Your task to perform on an android device: Go to location settings Image 0: 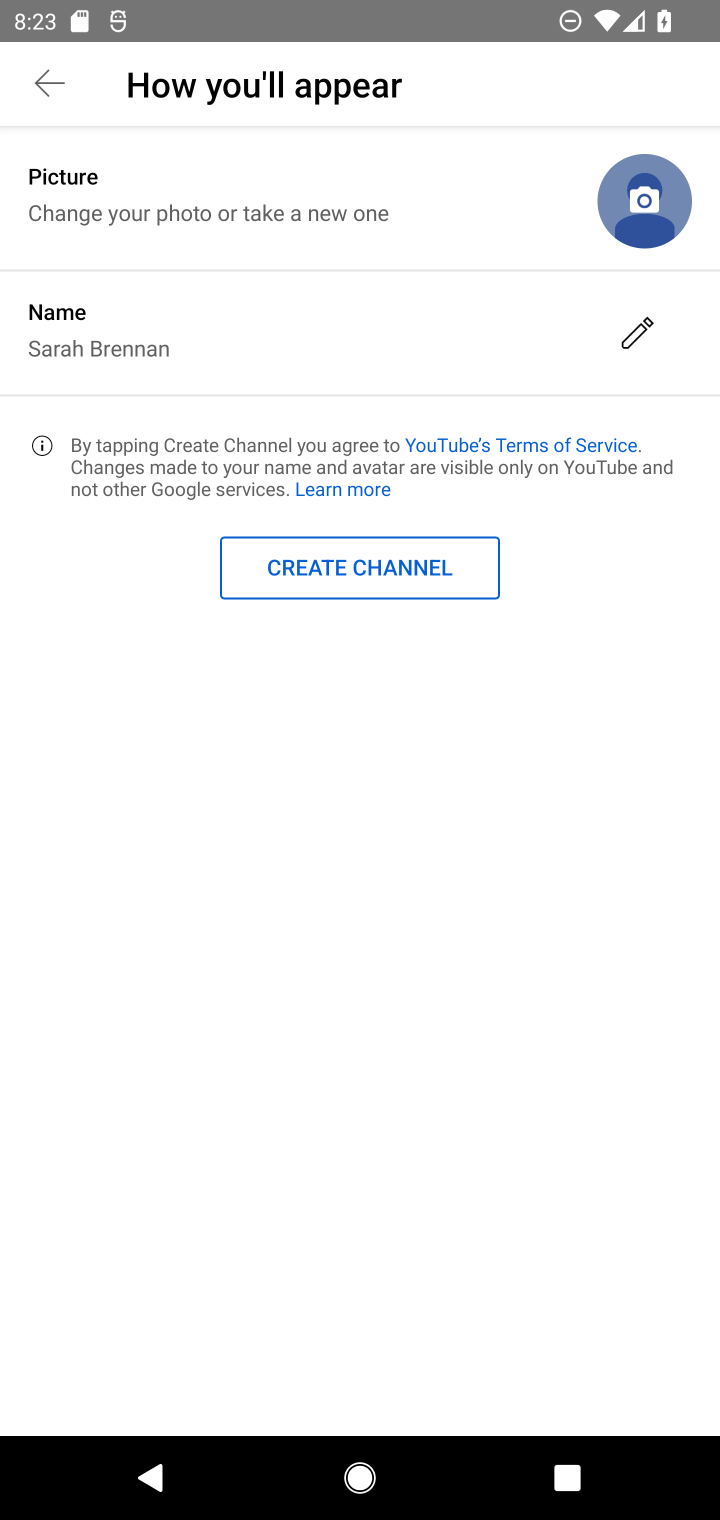
Step 0: press home button
Your task to perform on an android device: Go to location settings Image 1: 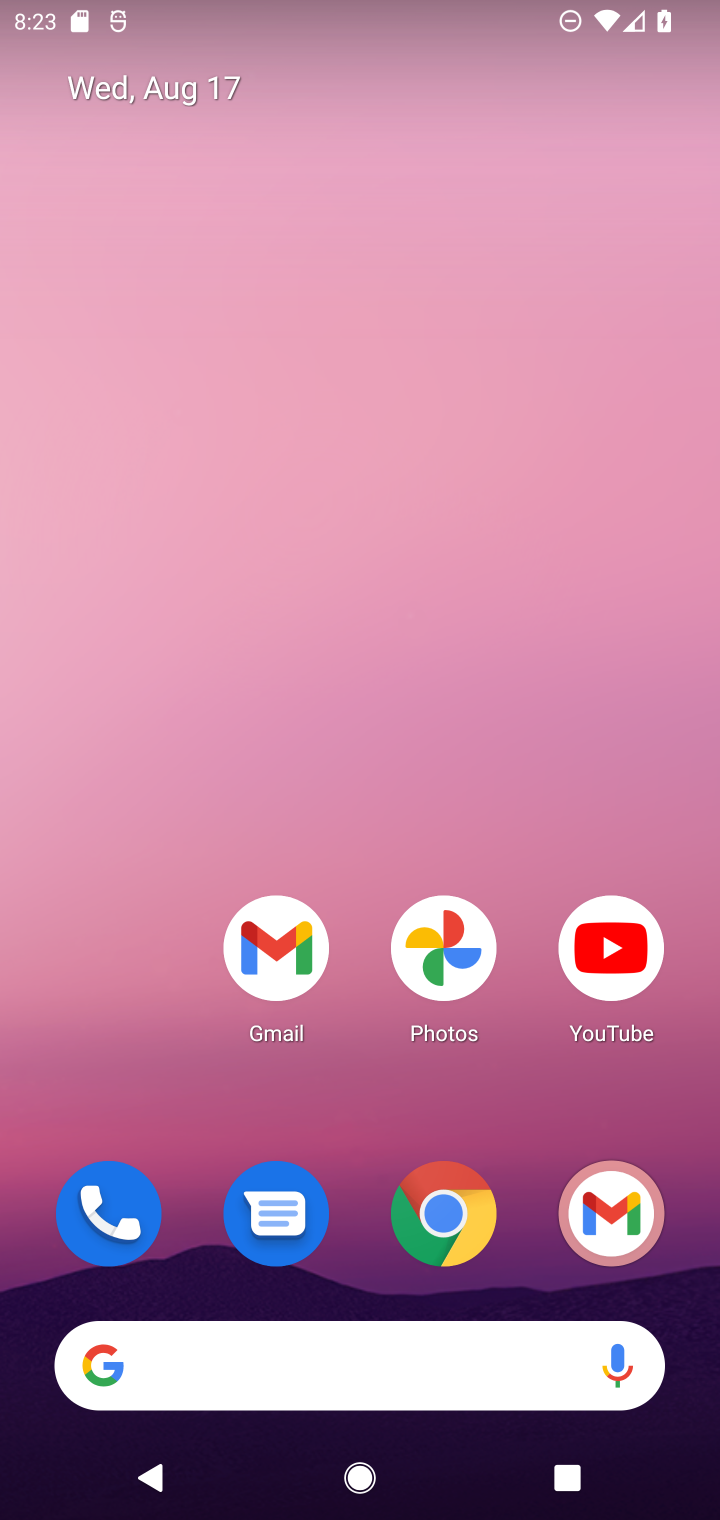
Step 1: drag from (352, 1308) to (535, 167)
Your task to perform on an android device: Go to location settings Image 2: 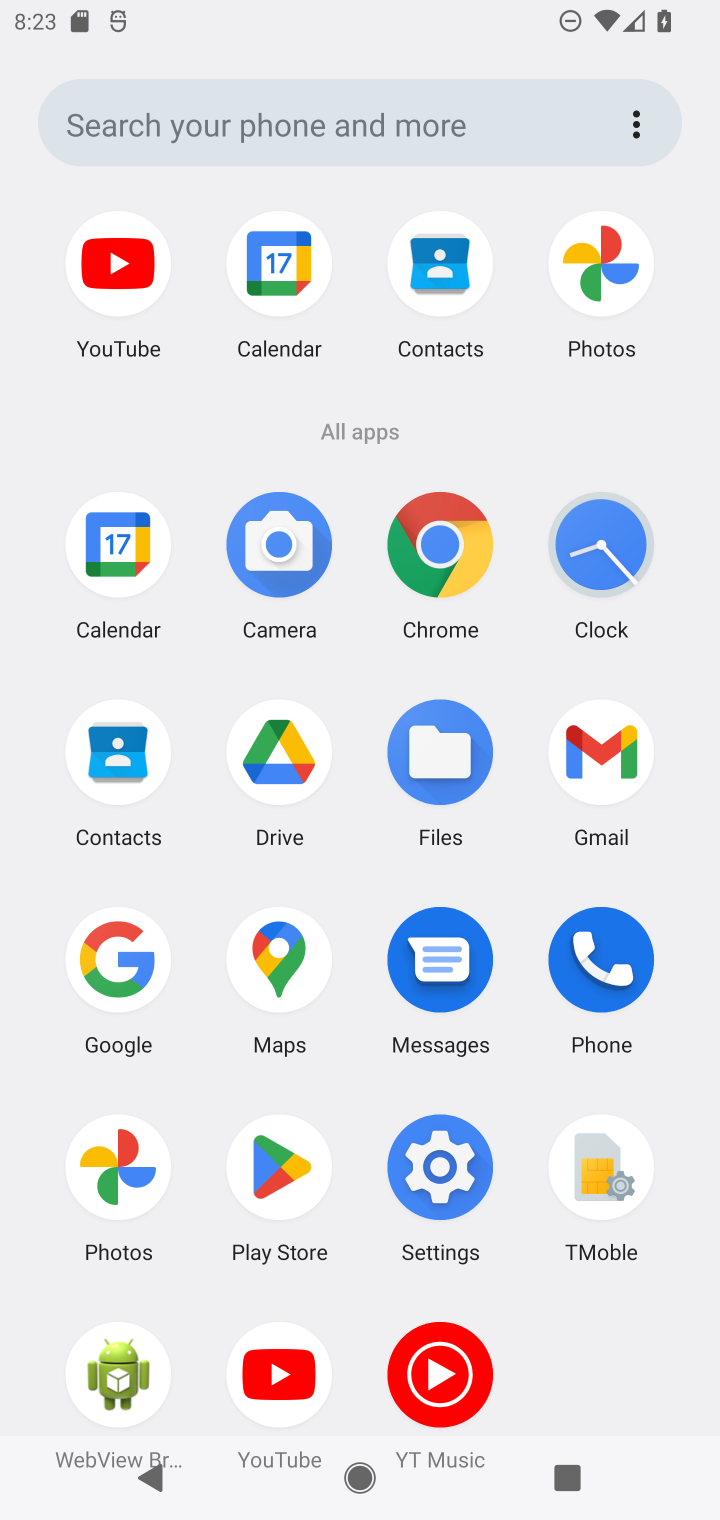
Step 2: click (432, 1259)
Your task to perform on an android device: Go to location settings Image 3: 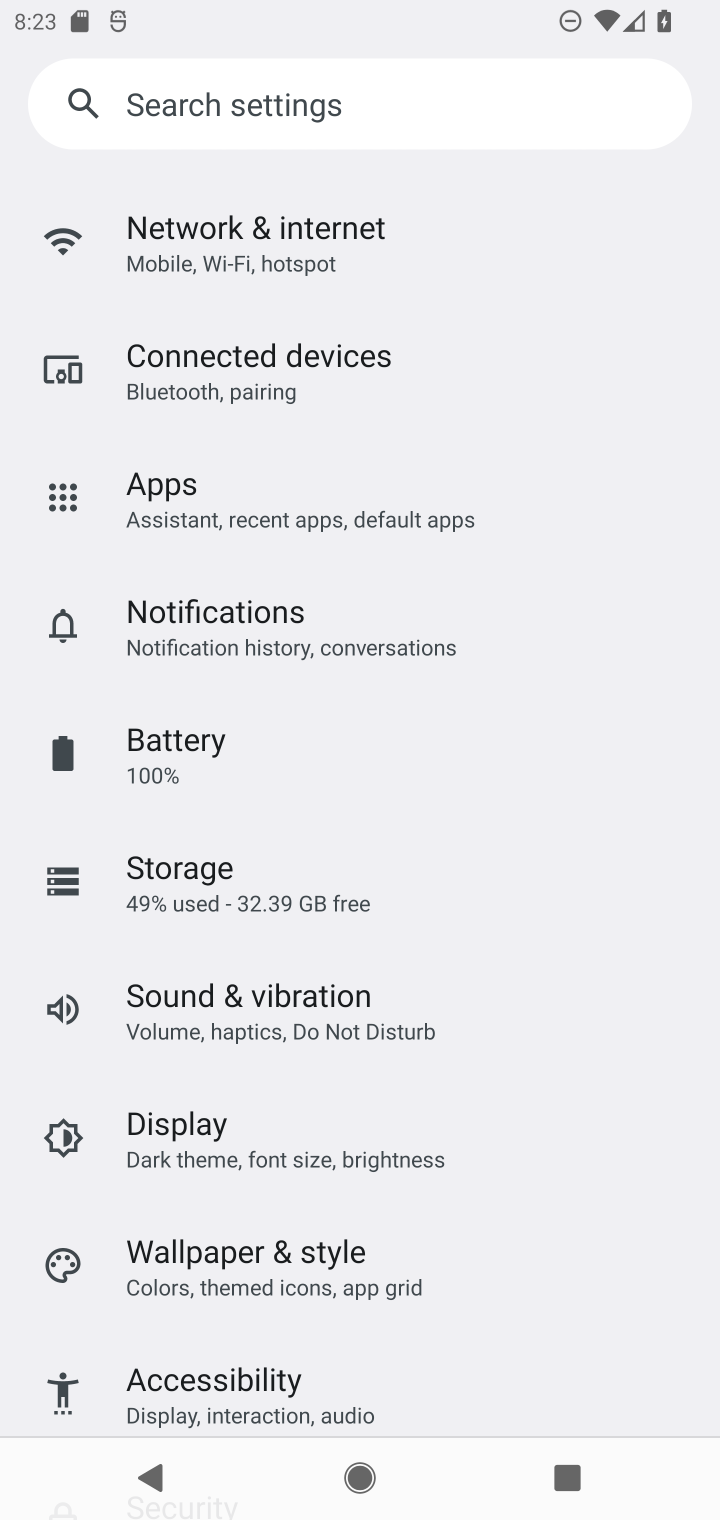
Step 3: drag from (324, 1348) to (343, 429)
Your task to perform on an android device: Go to location settings Image 4: 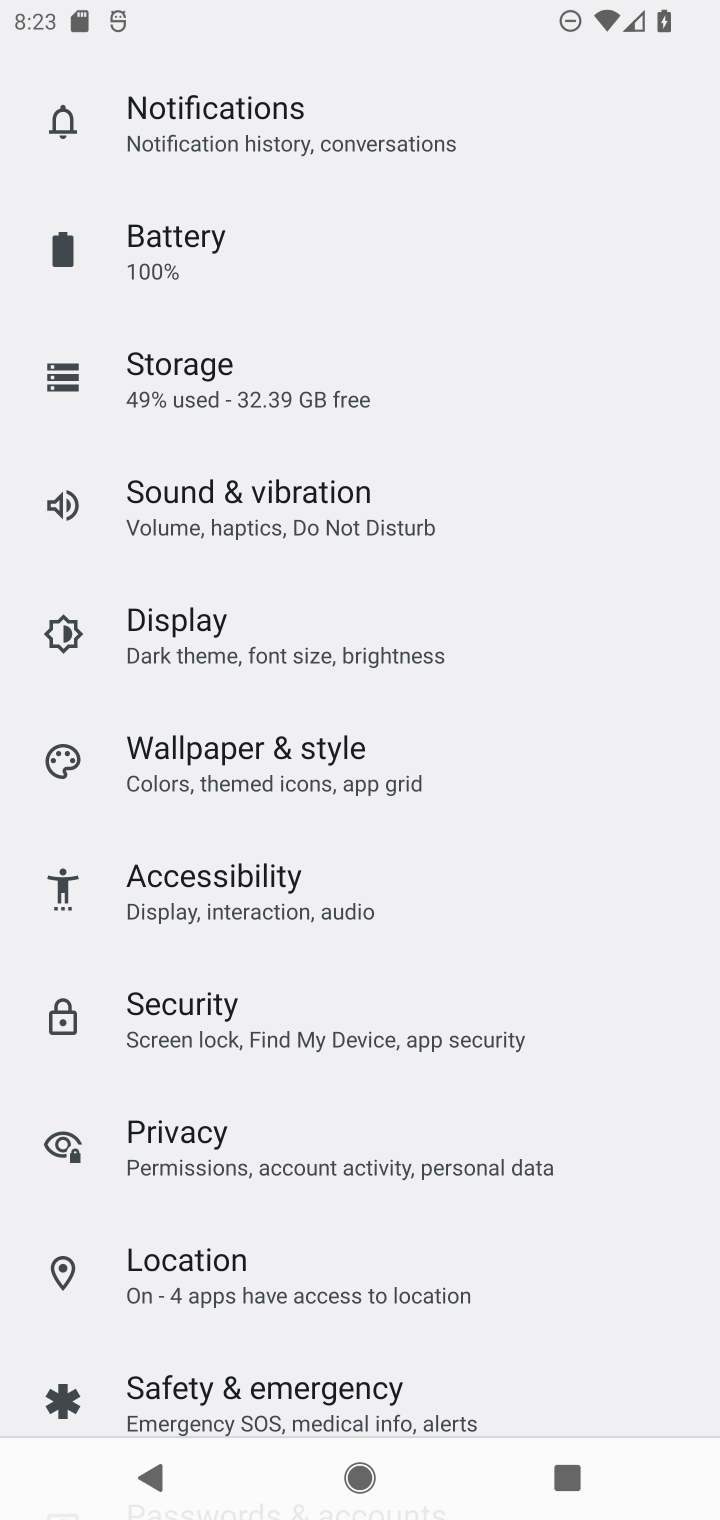
Step 4: click (298, 1294)
Your task to perform on an android device: Go to location settings Image 5: 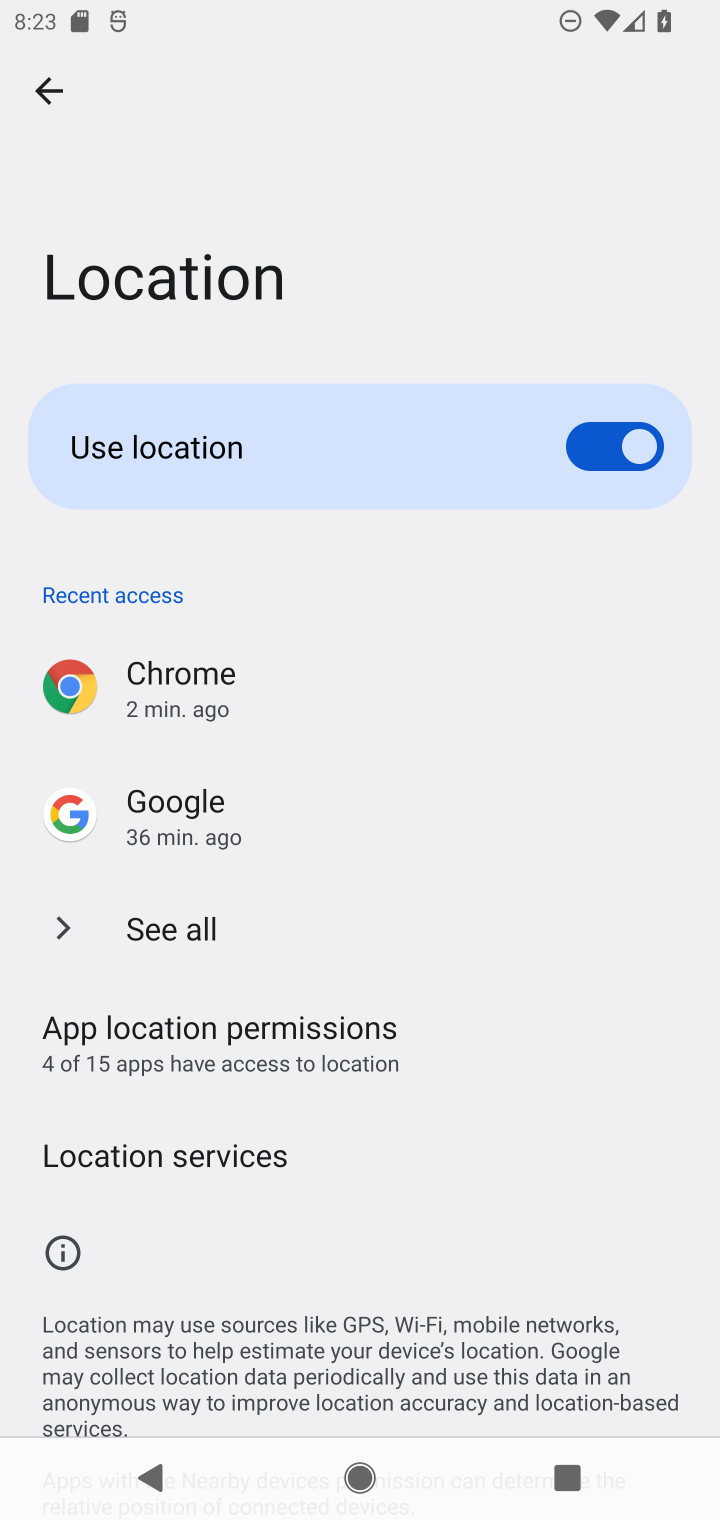
Step 5: task complete